Your task to perform on an android device: What's the weather? Image 0: 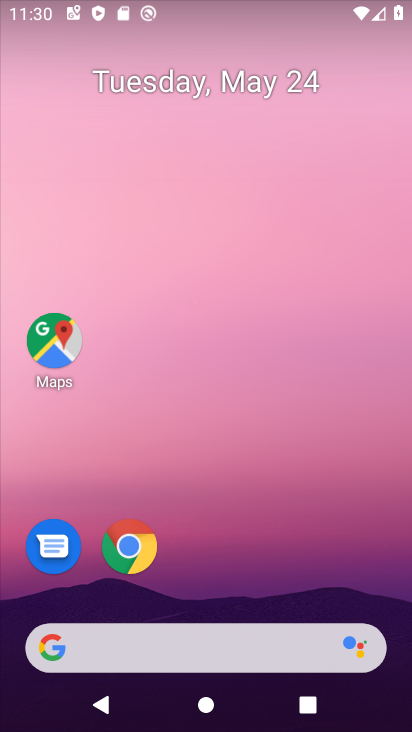
Step 0: drag from (280, 585) to (238, 222)
Your task to perform on an android device: What's the weather? Image 1: 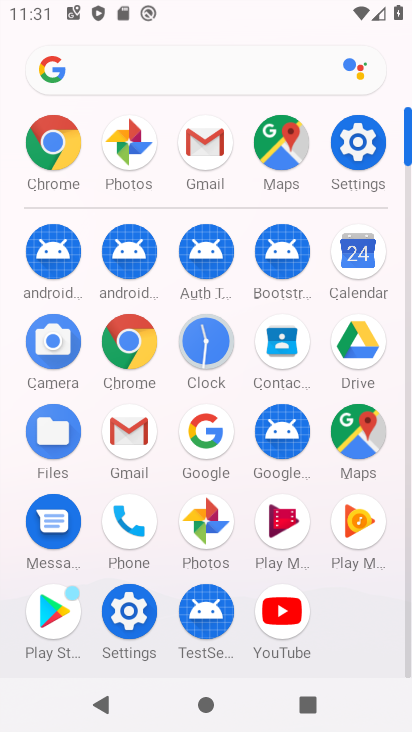
Step 1: click (57, 156)
Your task to perform on an android device: What's the weather? Image 2: 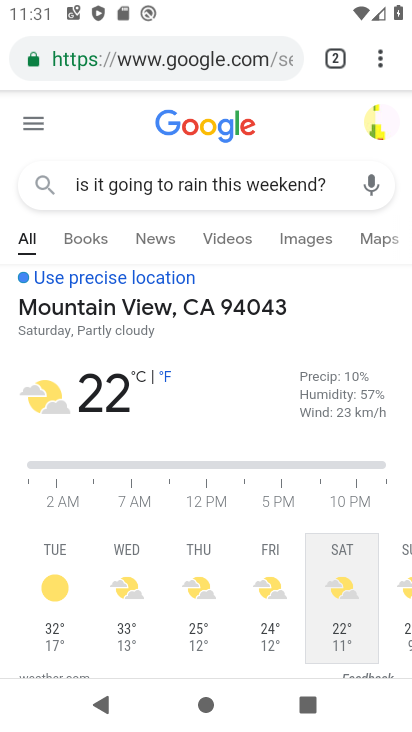
Step 2: click (109, 184)
Your task to perform on an android device: What's the weather? Image 3: 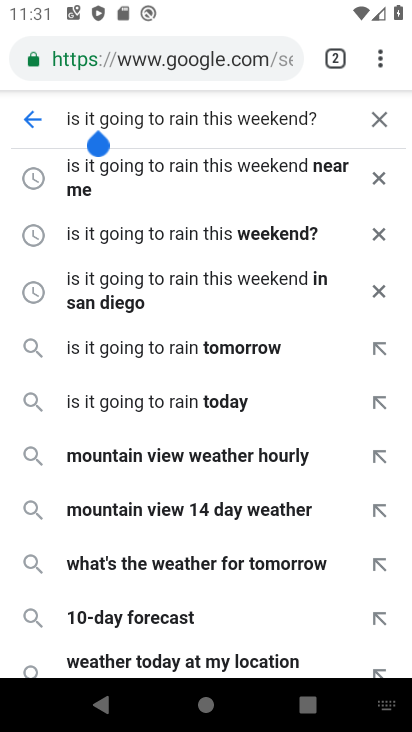
Step 3: click (368, 118)
Your task to perform on an android device: What's the weather? Image 4: 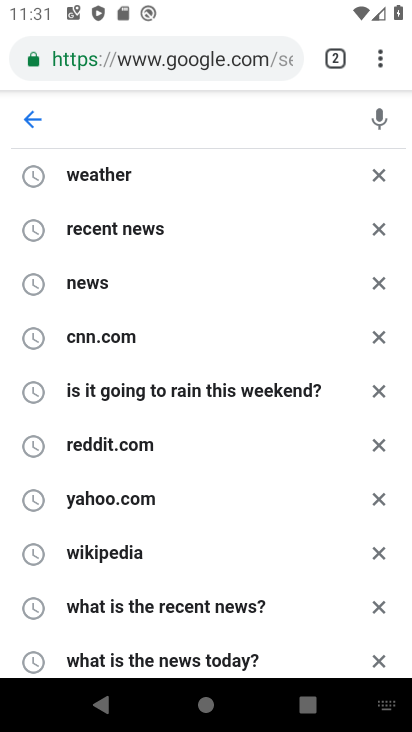
Step 4: type "What's the weather?"
Your task to perform on an android device: What's the weather? Image 5: 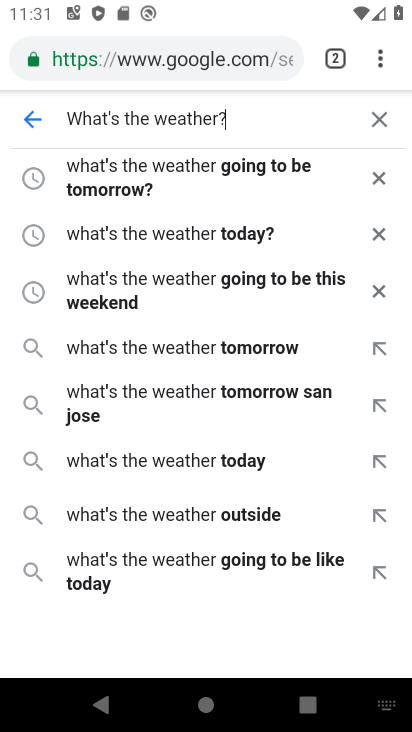
Step 5: click (179, 227)
Your task to perform on an android device: What's the weather? Image 6: 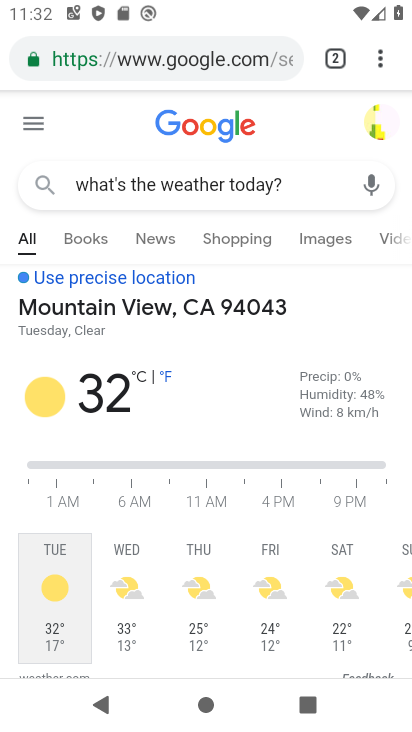
Step 6: click (123, 558)
Your task to perform on an android device: What's the weather? Image 7: 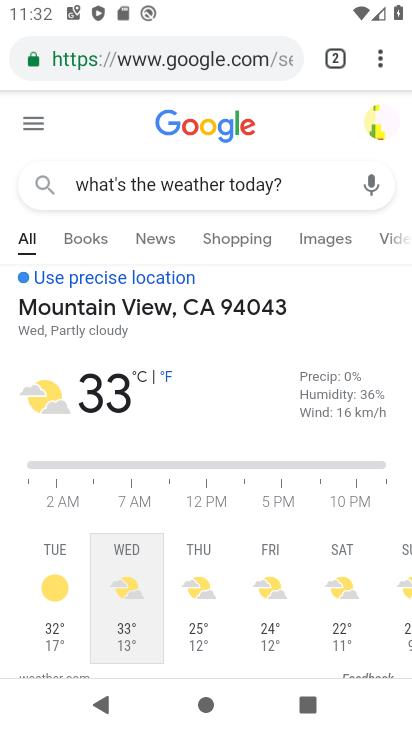
Step 7: task complete